Your task to perform on an android device: Go to settings Image 0: 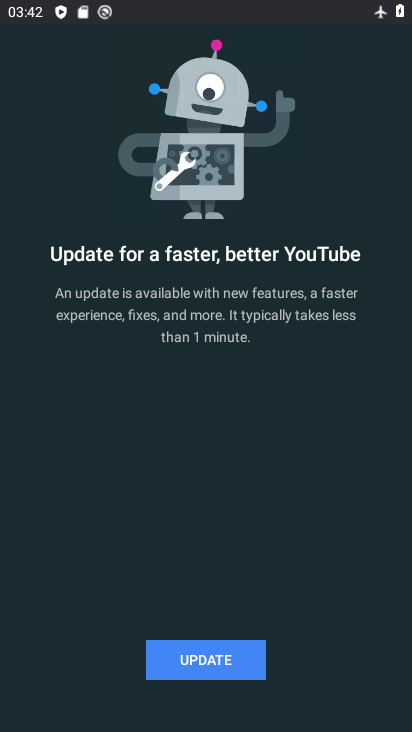
Step 0: press back button
Your task to perform on an android device: Go to settings Image 1: 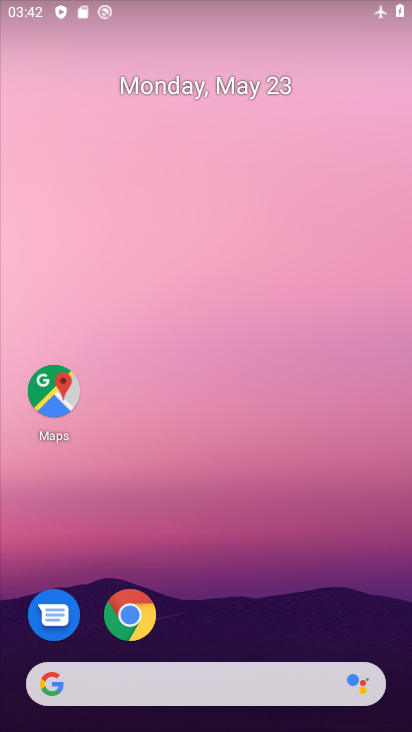
Step 1: task complete